Your task to perform on an android device: Set the phone to "Do not disturb". Image 0: 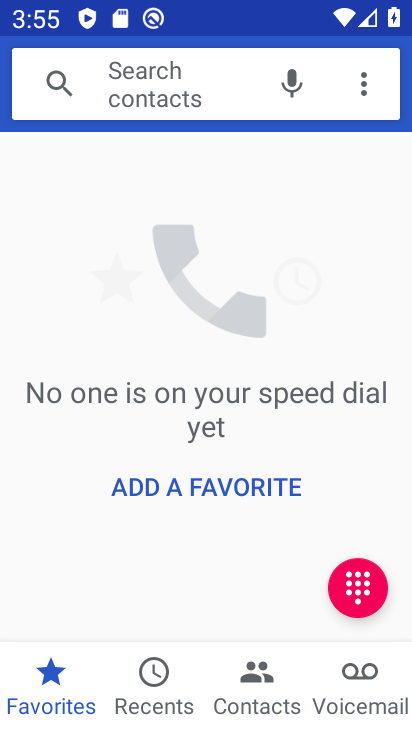
Step 0: press home button
Your task to perform on an android device: Set the phone to "Do not disturb". Image 1: 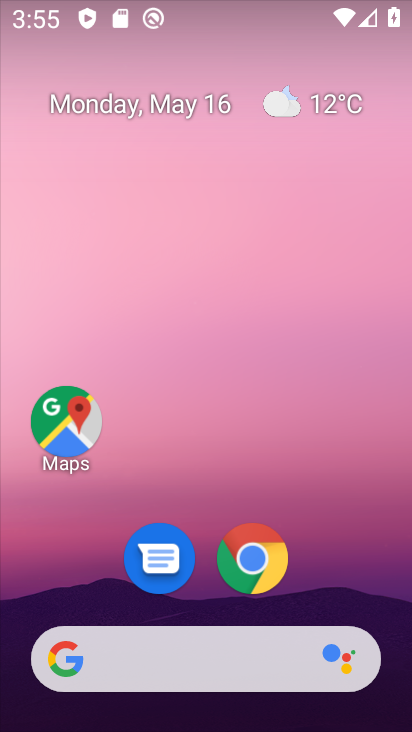
Step 1: drag from (115, 561) to (237, 73)
Your task to perform on an android device: Set the phone to "Do not disturb". Image 2: 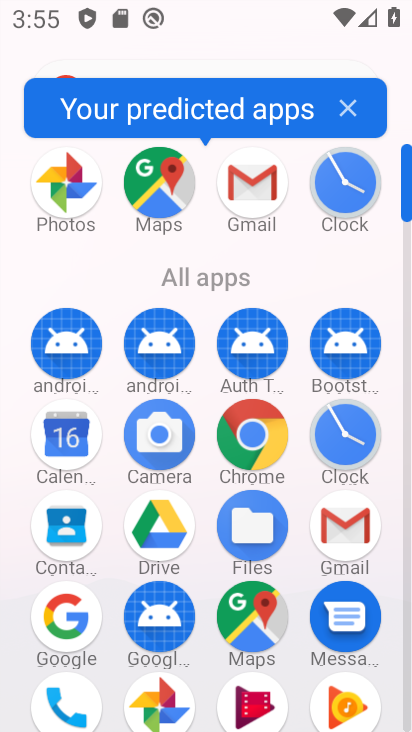
Step 2: drag from (141, 650) to (230, 424)
Your task to perform on an android device: Set the phone to "Do not disturb". Image 3: 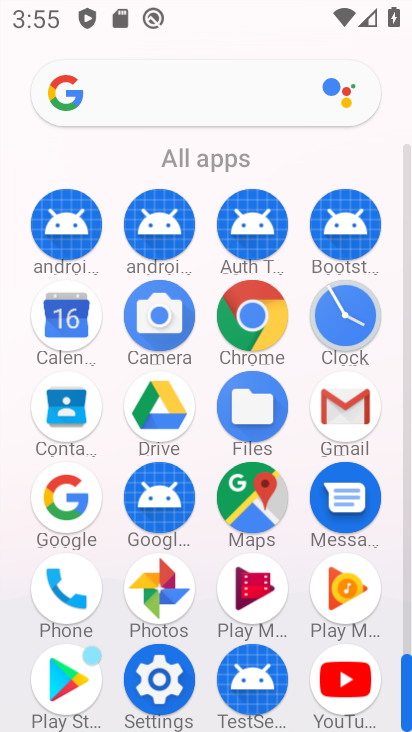
Step 3: click (169, 681)
Your task to perform on an android device: Set the phone to "Do not disturb". Image 4: 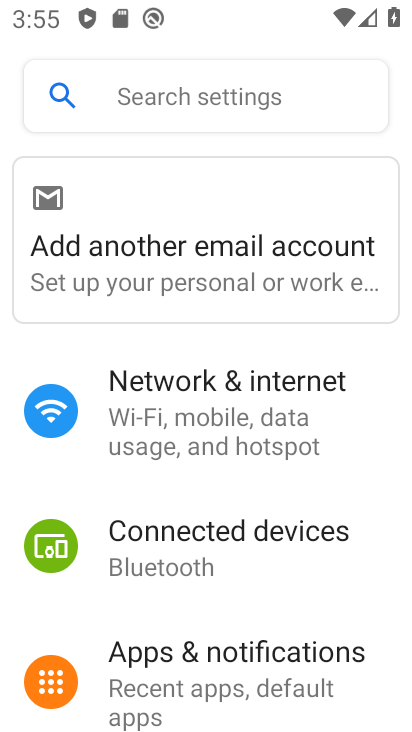
Step 4: click (204, 685)
Your task to perform on an android device: Set the phone to "Do not disturb". Image 5: 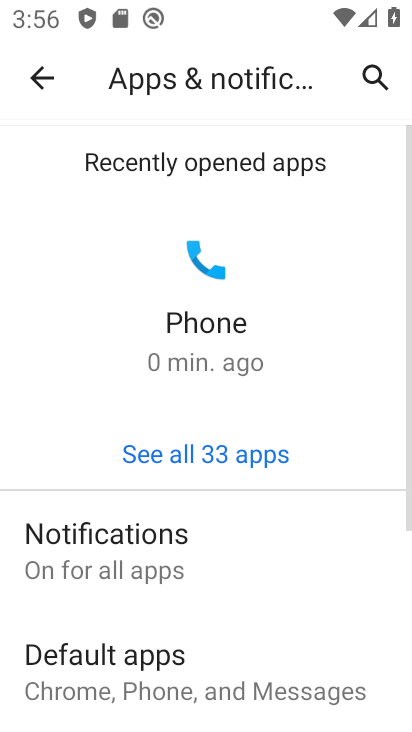
Step 5: drag from (277, 699) to (364, 419)
Your task to perform on an android device: Set the phone to "Do not disturb". Image 6: 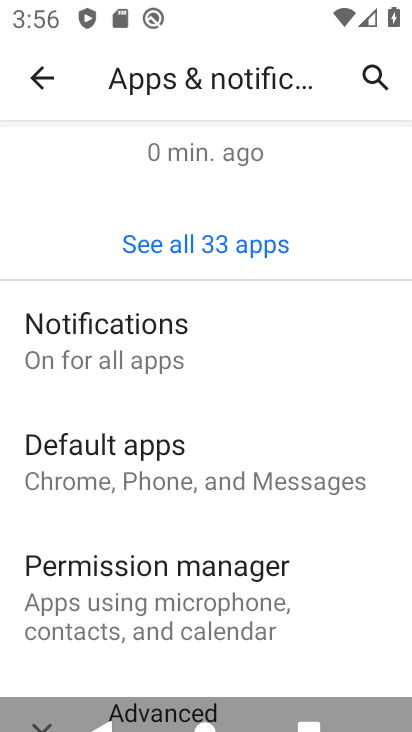
Step 6: click (208, 356)
Your task to perform on an android device: Set the phone to "Do not disturb". Image 7: 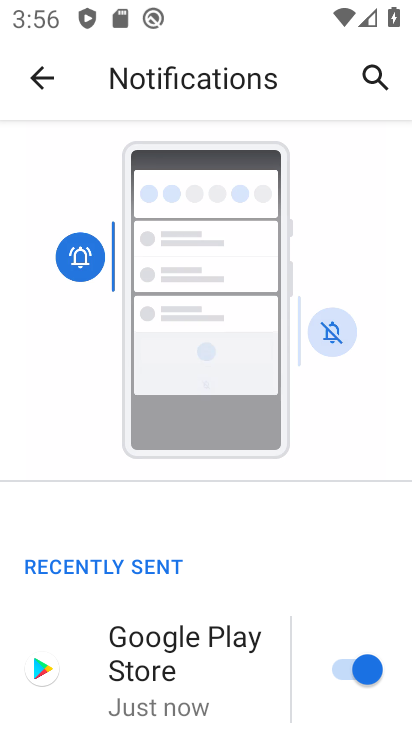
Step 7: drag from (218, 680) to (332, 291)
Your task to perform on an android device: Set the phone to "Do not disturb". Image 8: 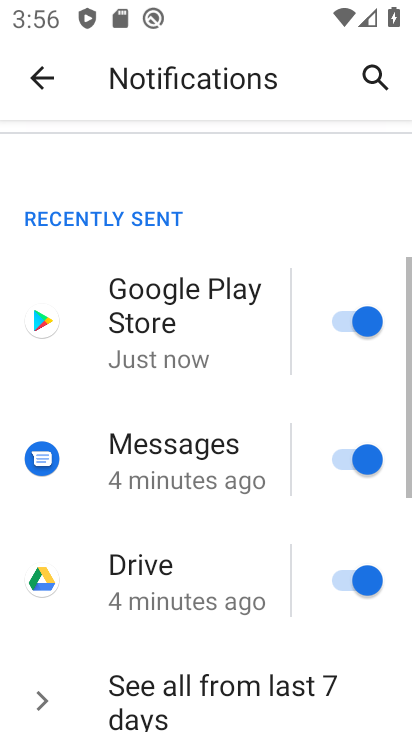
Step 8: drag from (230, 584) to (359, 145)
Your task to perform on an android device: Set the phone to "Do not disturb". Image 9: 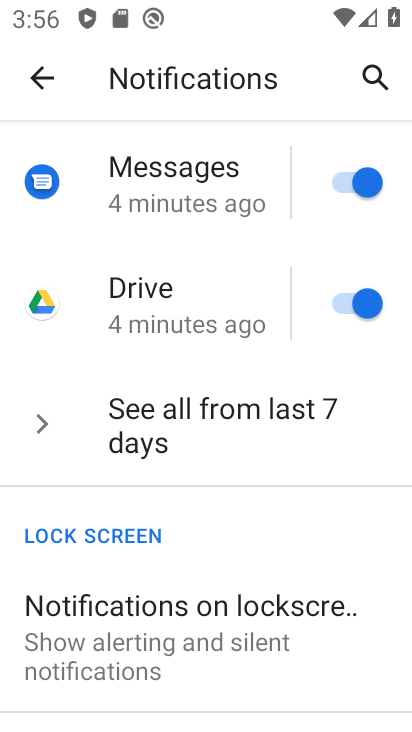
Step 9: drag from (125, 574) to (245, 209)
Your task to perform on an android device: Set the phone to "Do not disturb". Image 10: 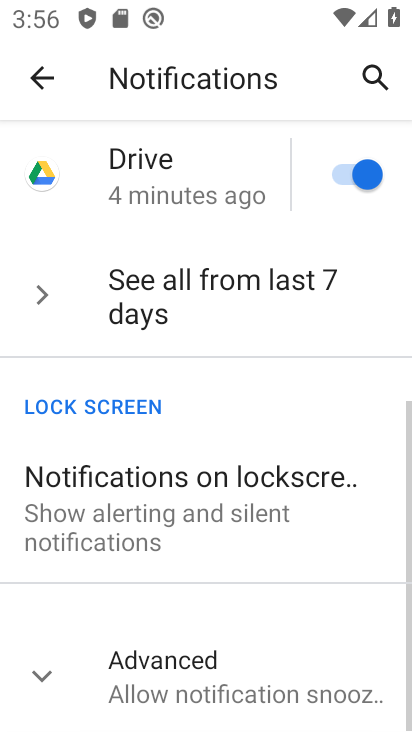
Step 10: click (188, 682)
Your task to perform on an android device: Set the phone to "Do not disturb". Image 11: 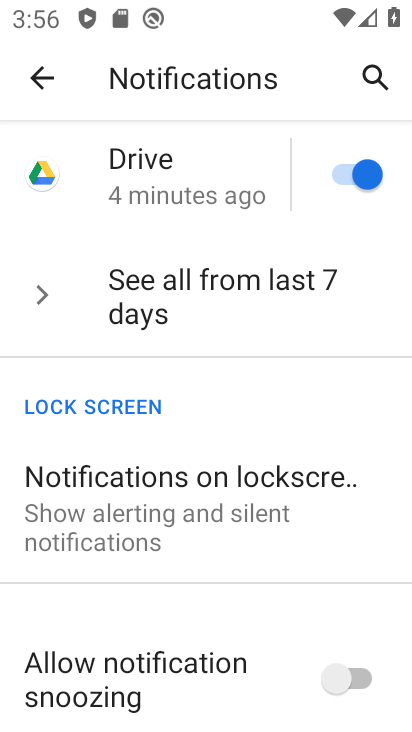
Step 11: drag from (142, 717) to (254, 191)
Your task to perform on an android device: Set the phone to "Do not disturb". Image 12: 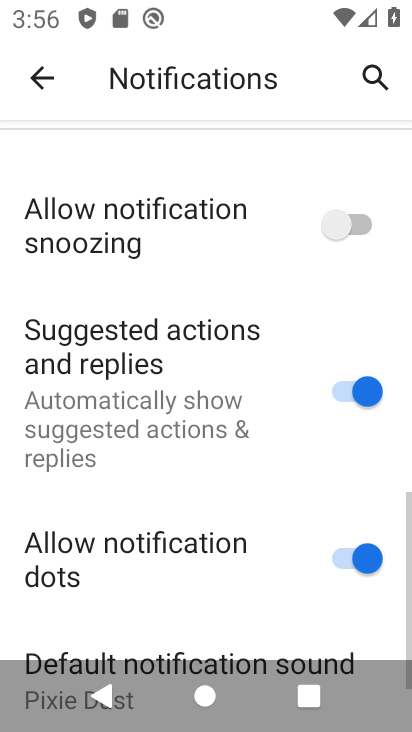
Step 12: drag from (212, 522) to (322, 65)
Your task to perform on an android device: Set the phone to "Do not disturb". Image 13: 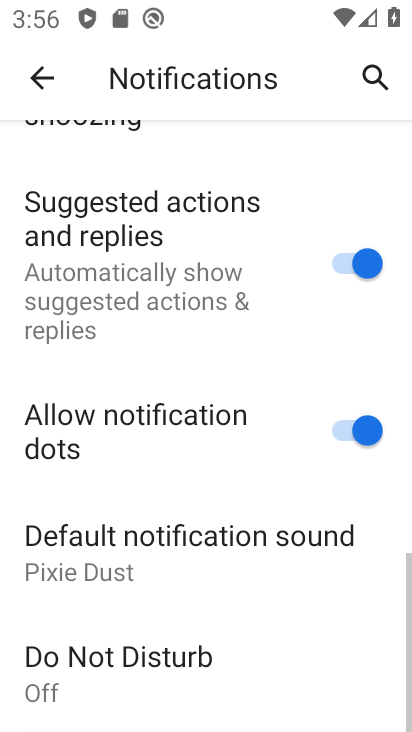
Step 13: click (187, 650)
Your task to perform on an android device: Set the phone to "Do not disturb". Image 14: 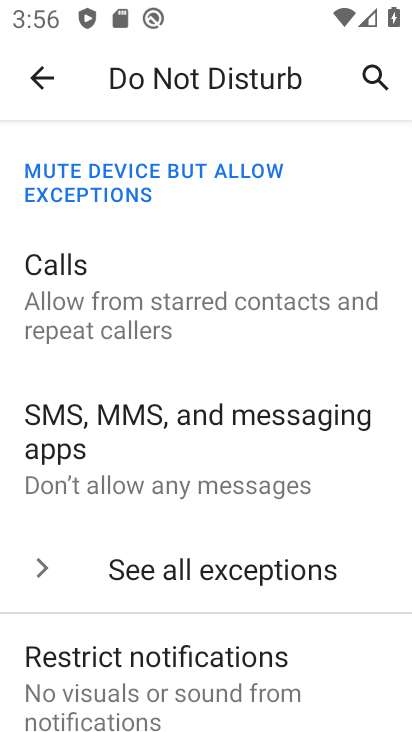
Step 14: drag from (231, 666) to (327, 50)
Your task to perform on an android device: Set the phone to "Do not disturb". Image 15: 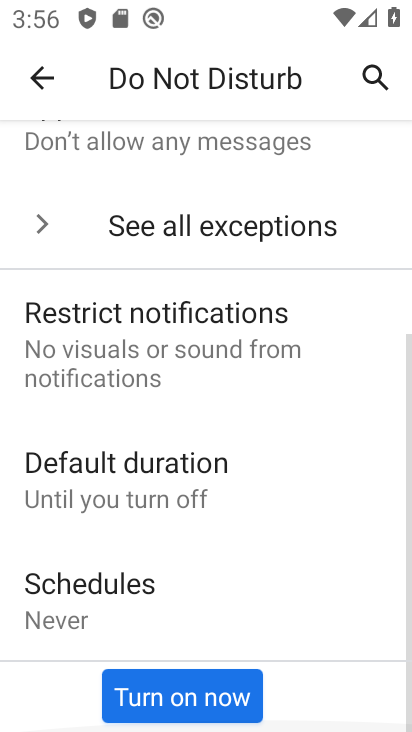
Step 15: click (195, 701)
Your task to perform on an android device: Set the phone to "Do not disturb". Image 16: 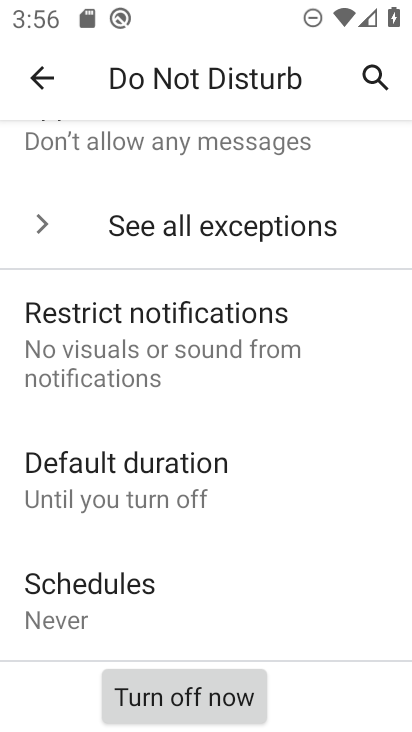
Step 16: task complete